Your task to perform on an android device: set an alarm Image 0: 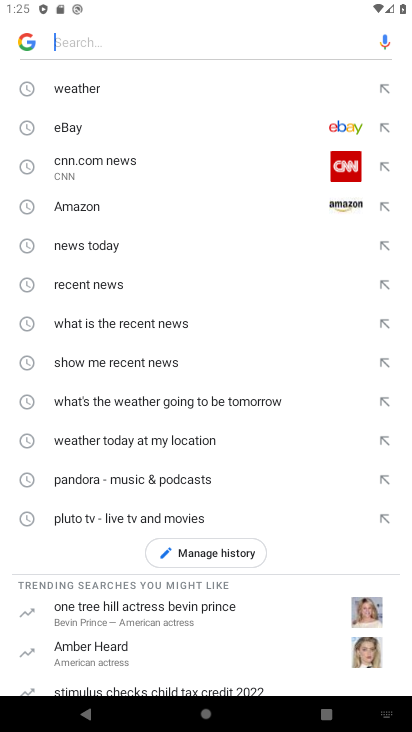
Step 0: press home button
Your task to perform on an android device: set an alarm Image 1: 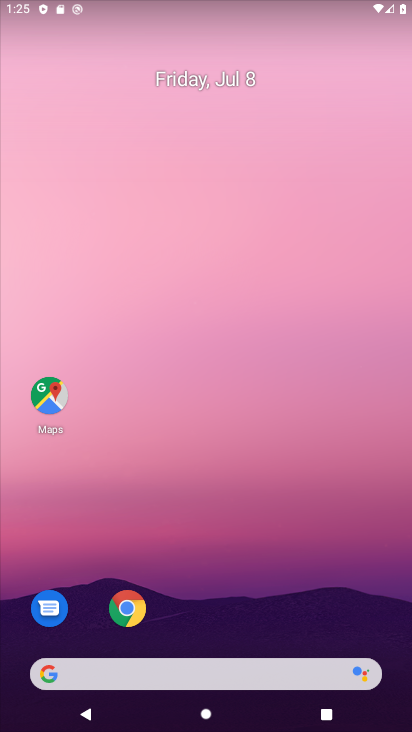
Step 1: drag from (233, 626) to (181, 115)
Your task to perform on an android device: set an alarm Image 2: 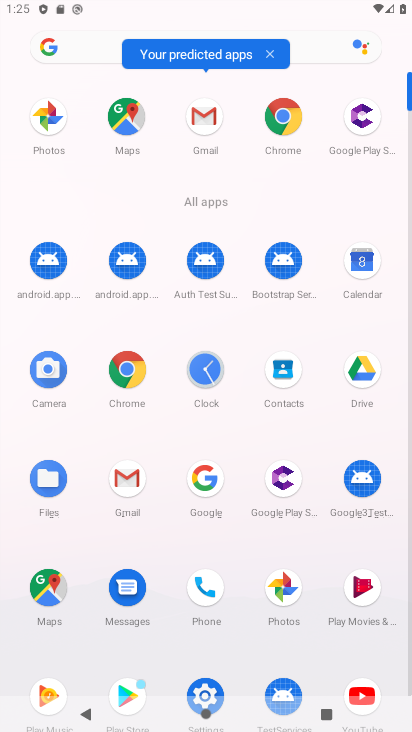
Step 2: click (210, 370)
Your task to perform on an android device: set an alarm Image 3: 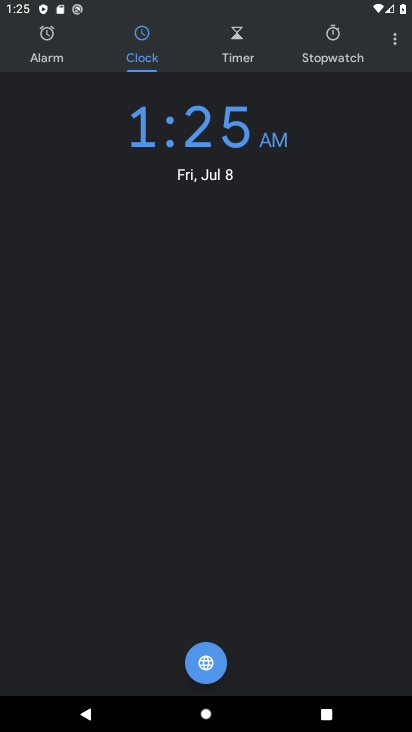
Step 3: click (63, 45)
Your task to perform on an android device: set an alarm Image 4: 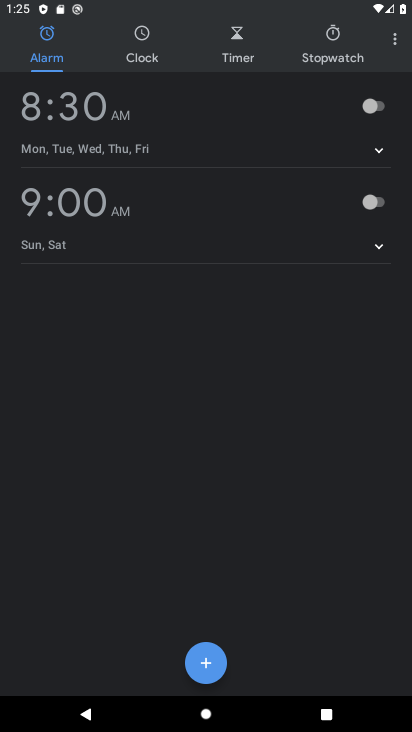
Step 4: click (373, 214)
Your task to perform on an android device: set an alarm Image 5: 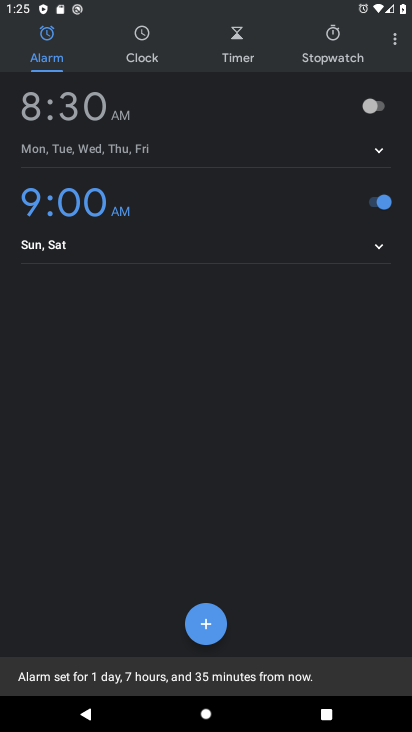
Step 5: task complete